Your task to perform on an android device: move a message to another label in the gmail app Image 0: 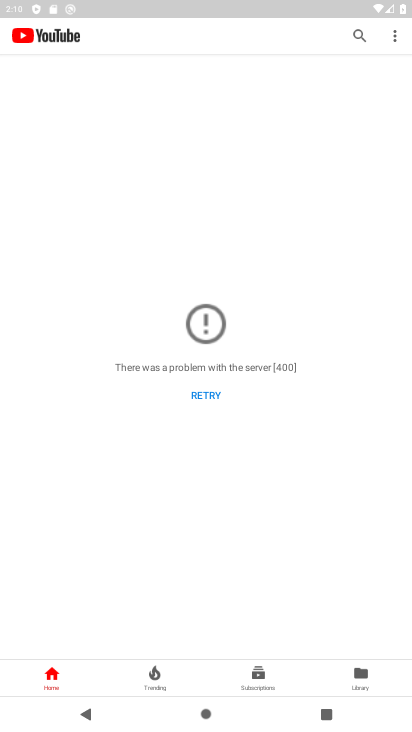
Step 0: press home button
Your task to perform on an android device: move a message to another label in the gmail app Image 1: 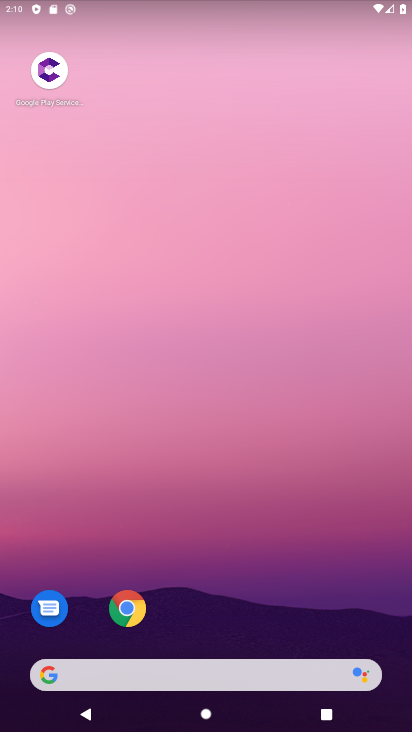
Step 1: drag from (260, 567) to (267, 135)
Your task to perform on an android device: move a message to another label in the gmail app Image 2: 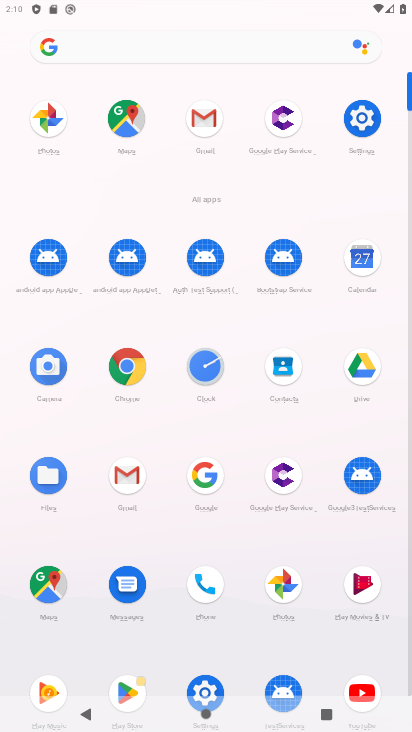
Step 2: click (125, 474)
Your task to perform on an android device: move a message to another label in the gmail app Image 3: 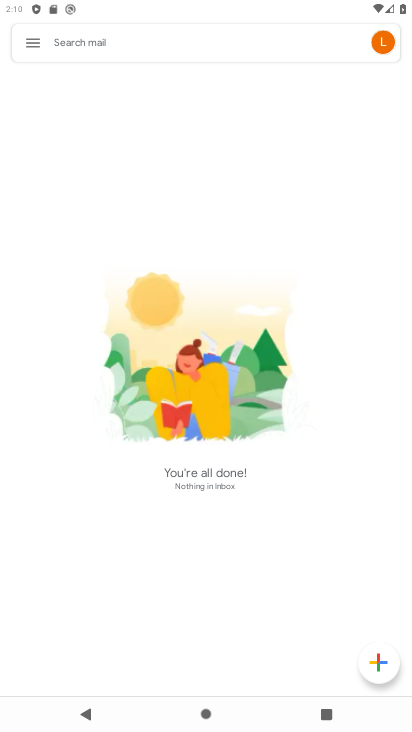
Step 3: click (39, 39)
Your task to perform on an android device: move a message to another label in the gmail app Image 4: 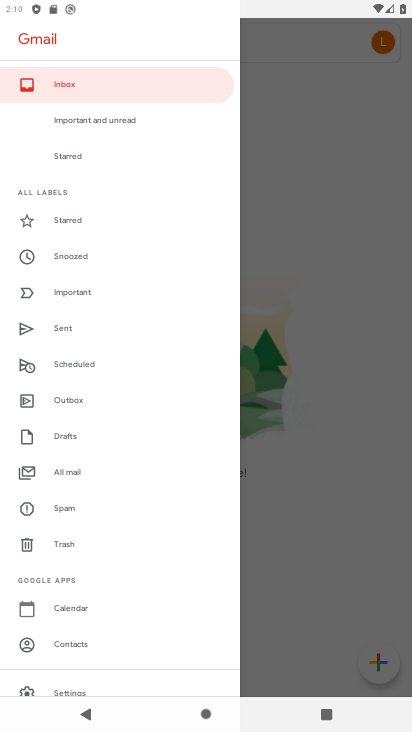
Step 4: click (69, 472)
Your task to perform on an android device: move a message to another label in the gmail app Image 5: 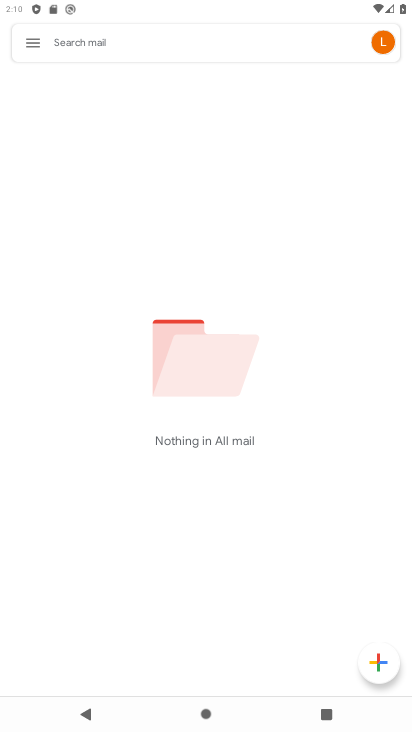
Step 5: task complete